Your task to perform on an android device: What's the weather going to be tomorrow? Image 0: 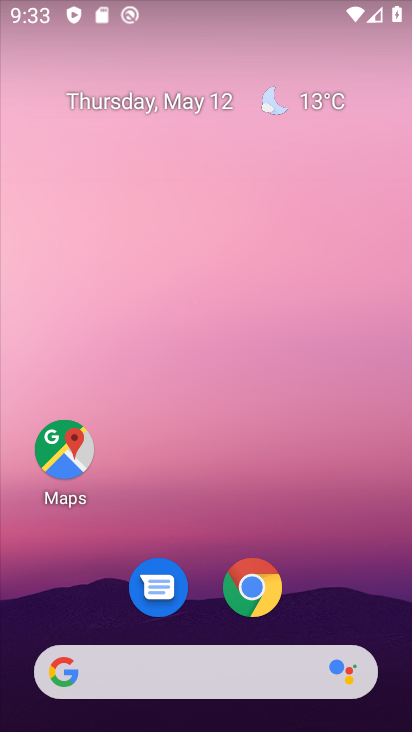
Step 0: drag from (365, 593) to (403, 27)
Your task to perform on an android device: What's the weather going to be tomorrow? Image 1: 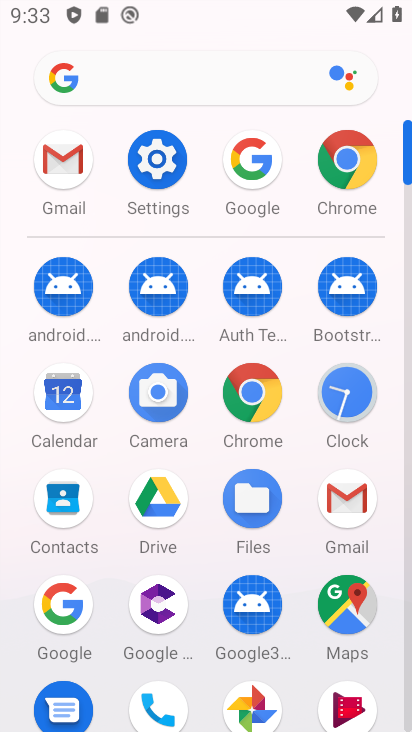
Step 1: press home button
Your task to perform on an android device: What's the weather going to be tomorrow? Image 2: 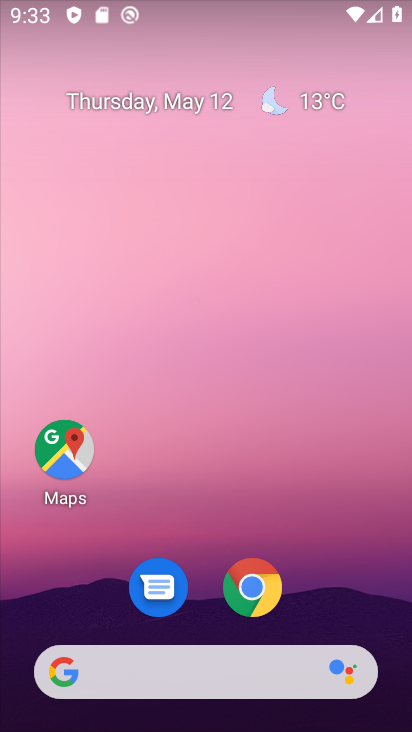
Step 2: click (319, 102)
Your task to perform on an android device: What's the weather going to be tomorrow? Image 3: 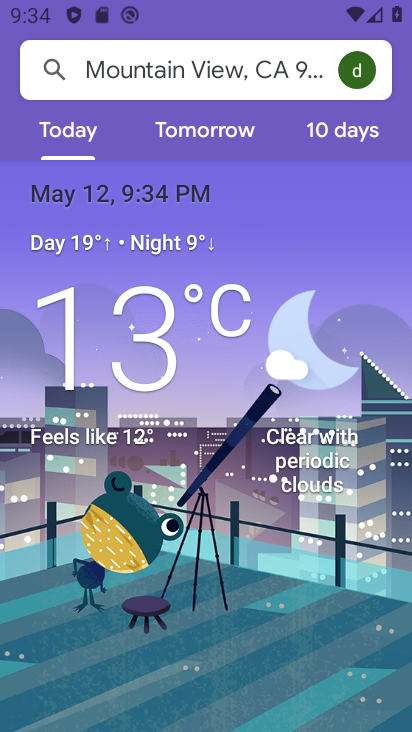
Step 3: task complete